Your task to perform on an android device: turn on javascript in the chrome app Image 0: 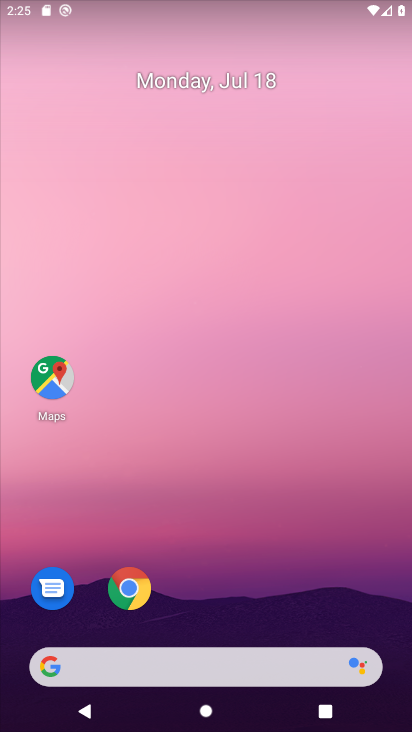
Step 0: click (136, 573)
Your task to perform on an android device: turn on javascript in the chrome app Image 1: 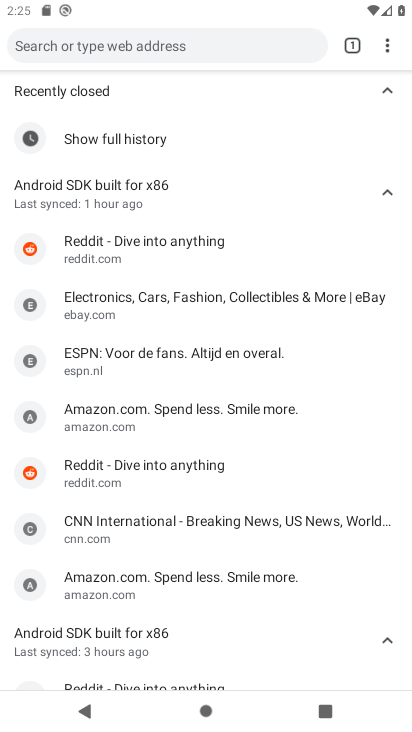
Step 1: click (383, 50)
Your task to perform on an android device: turn on javascript in the chrome app Image 2: 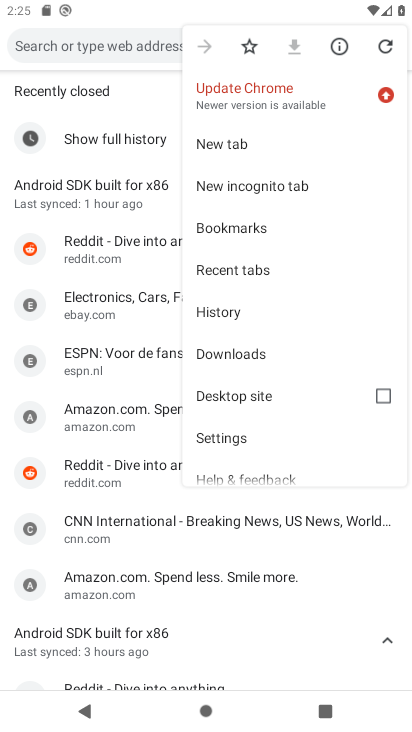
Step 2: click (236, 431)
Your task to perform on an android device: turn on javascript in the chrome app Image 3: 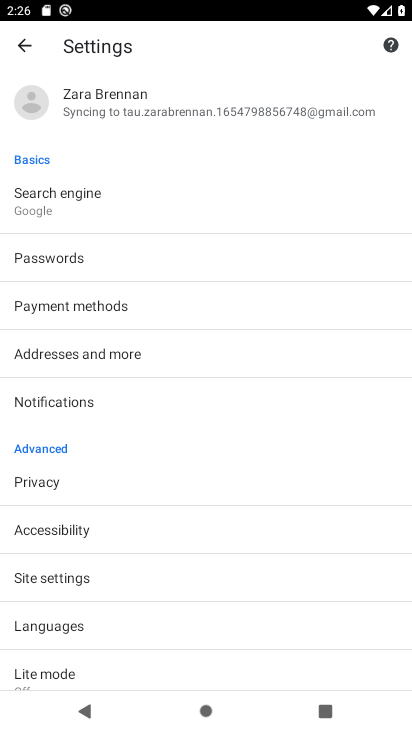
Step 3: click (90, 572)
Your task to perform on an android device: turn on javascript in the chrome app Image 4: 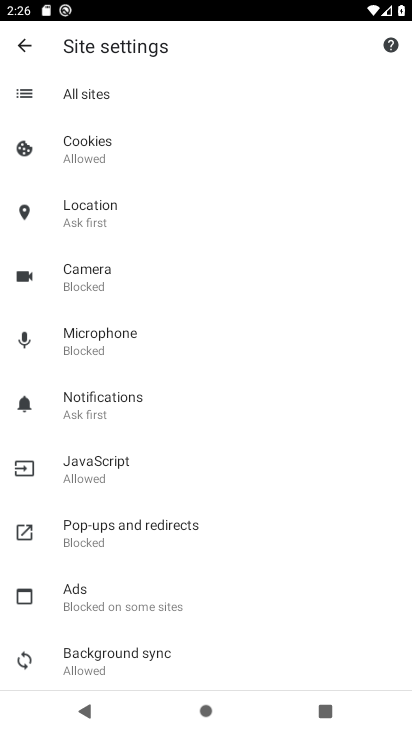
Step 4: click (106, 483)
Your task to perform on an android device: turn on javascript in the chrome app Image 5: 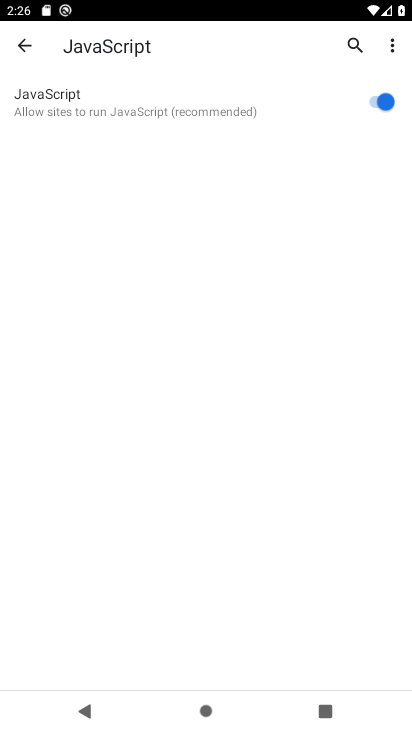
Step 5: task complete